Your task to perform on an android device: Search for Italian restaurants on Maps Image 0: 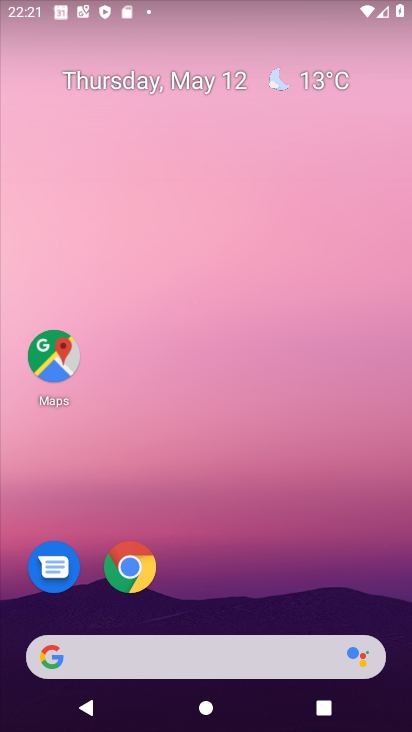
Step 0: click (48, 352)
Your task to perform on an android device: Search for Italian restaurants on Maps Image 1: 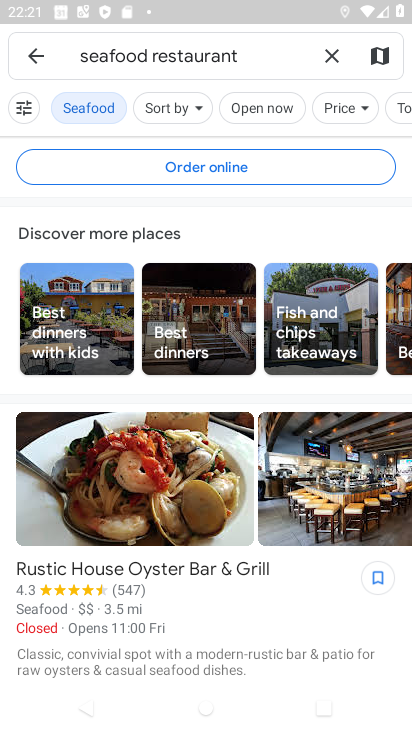
Step 1: click (317, 59)
Your task to perform on an android device: Search for Italian restaurants on Maps Image 2: 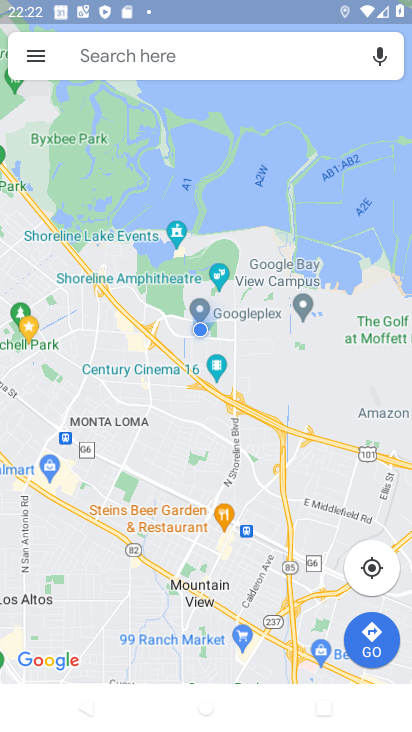
Step 2: click (157, 53)
Your task to perform on an android device: Search for Italian restaurants on Maps Image 3: 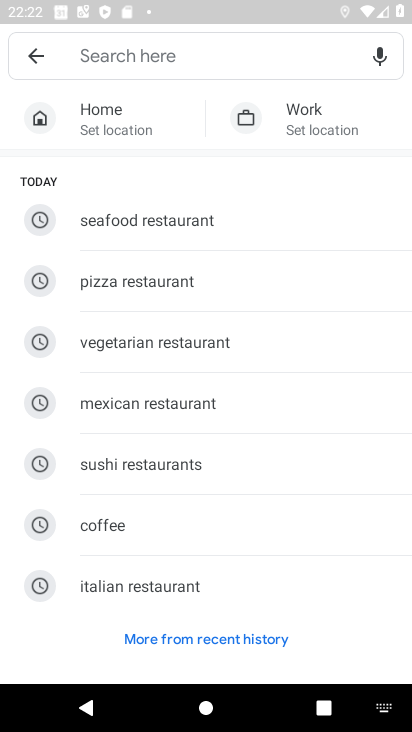
Step 3: click (128, 584)
Your task to perform on an android device: Search for Italian restaurants on Maps Image 4: 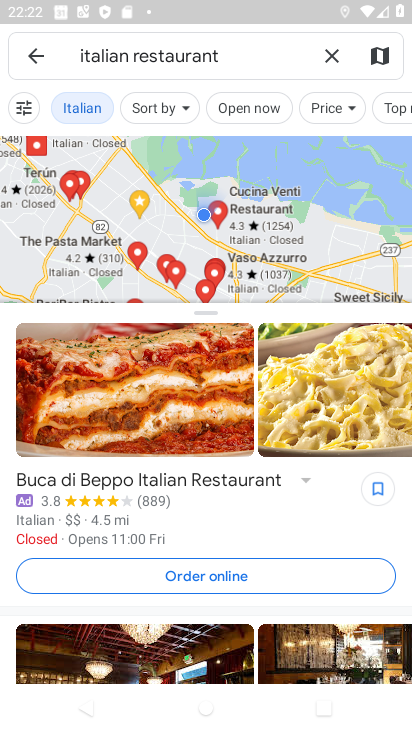
Step 4: task complete